Your task to perform on an android device: Open my contact list Image 0: 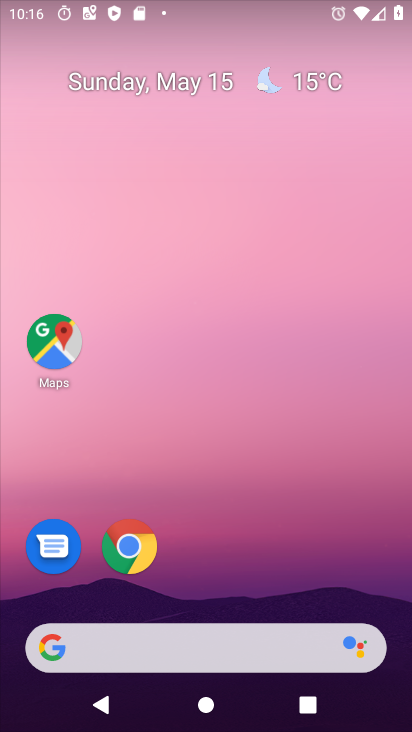
Step 0: drag from (323, 576) to (235, 117)
Your task to perform on an android device: Open my contact list Image 1: 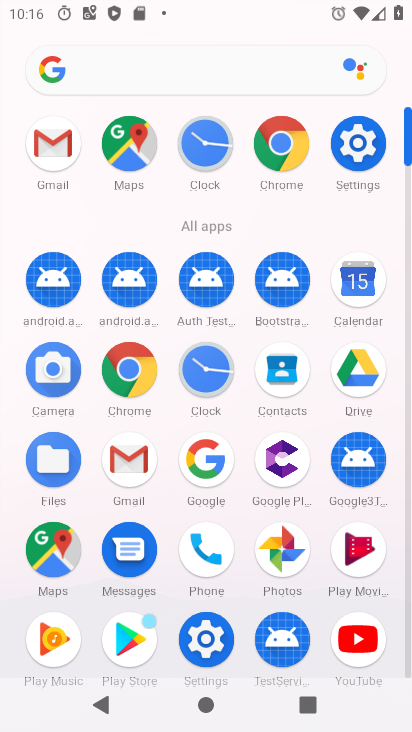
Step 1: click (260, 395)
Your task to perform on an android device: Open my contact list Image 2: 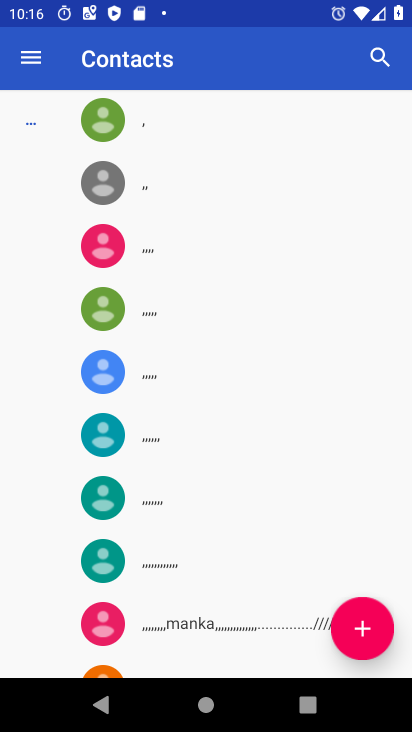
Step 2: task complete